Your task to perform on an android device: Open eBay Image 0: 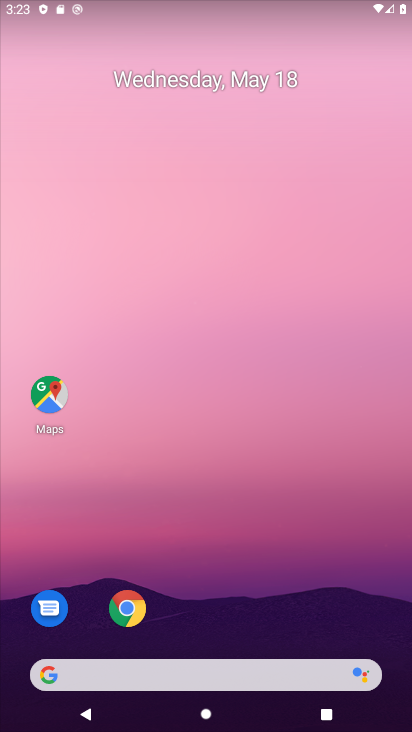
Step 0: click (131, 616)
Your task to perform on an android device: Open eBay Image 1: 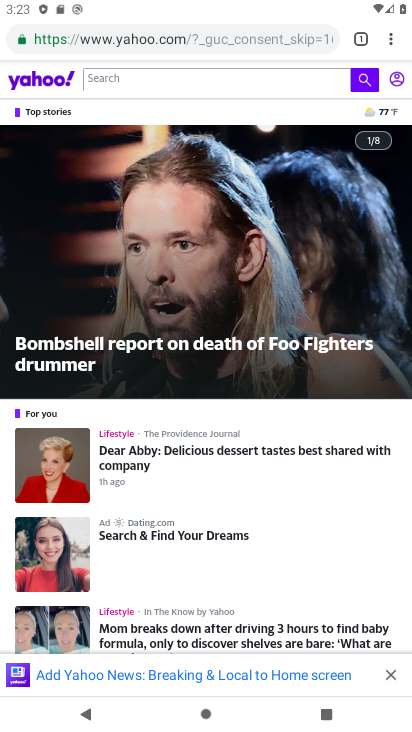
Step 1: click (201, 39)
Your task to perform on an android device: Open eBay Image 2: 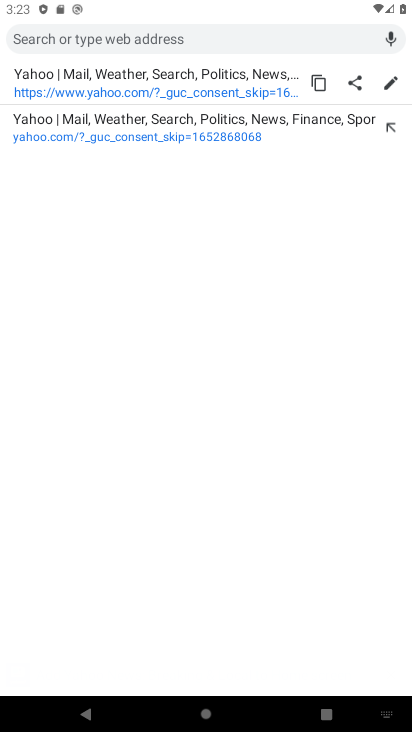
Step 2: click (158, 59)
Your task to perform on an android device: Open eBay Image 3: 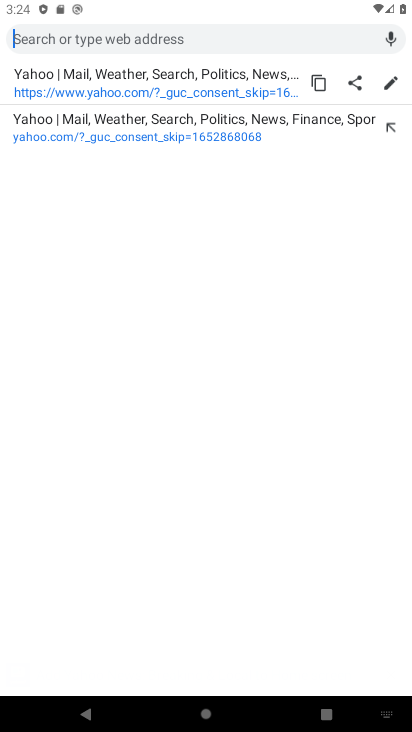
Step 3: press back button
Your task to perform on an android device: Open eBay Image 4: 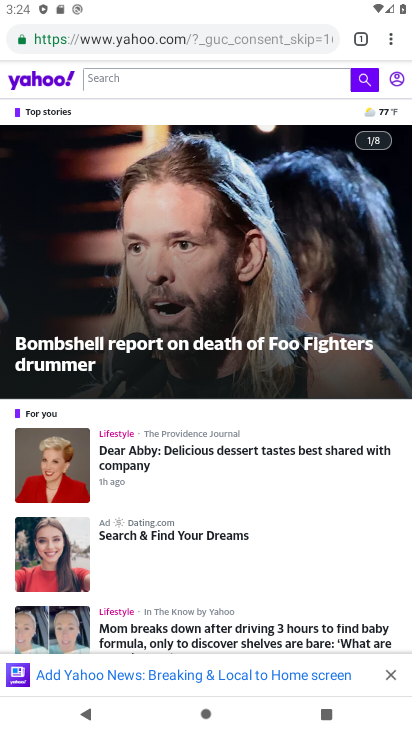
Step 4: click (358, 35)
Your task to perform on an android device: Open eBay Image 5: 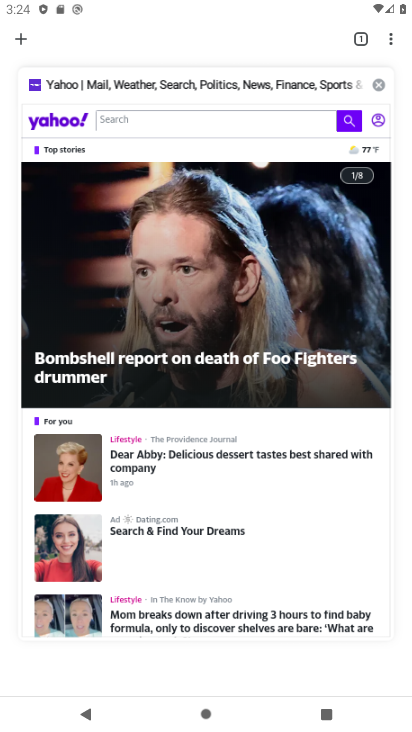
Step 5: click (20, 40)
Your task to perform on an android device: Open eBay Image 6: 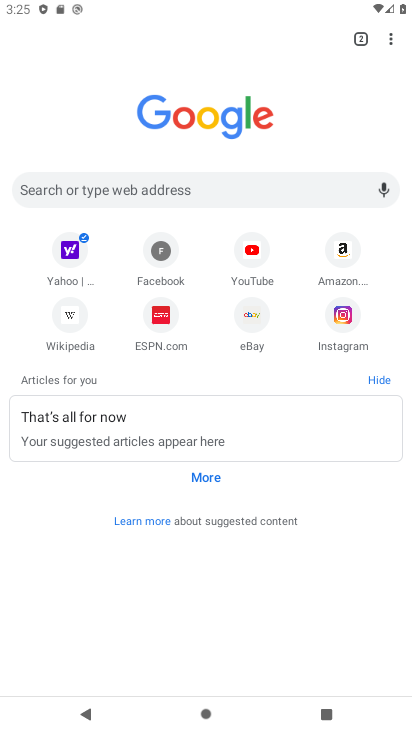
Step 6: click (112, 191)
Your task to perform on an android device: Open eBay Image 7: 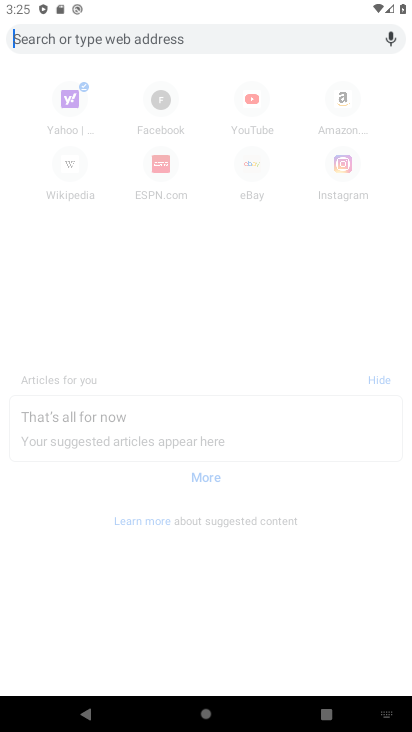
Step 7: type "ebay"
Your task to perform on an android device: Open eBay Image 8: 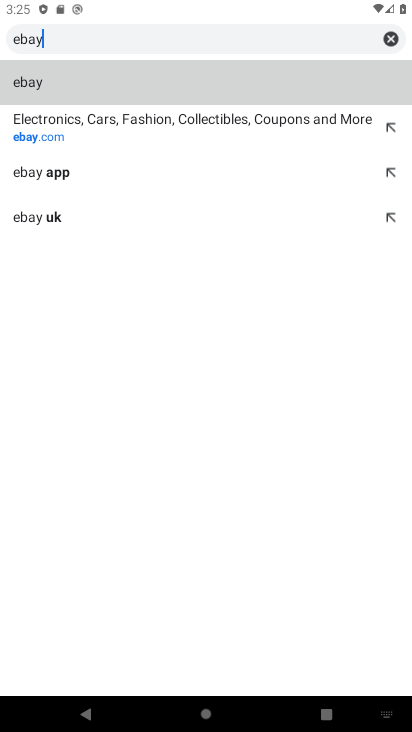
Step 8: click (40, 129)
Your task to perform on an android device: Open eBay Image 9: 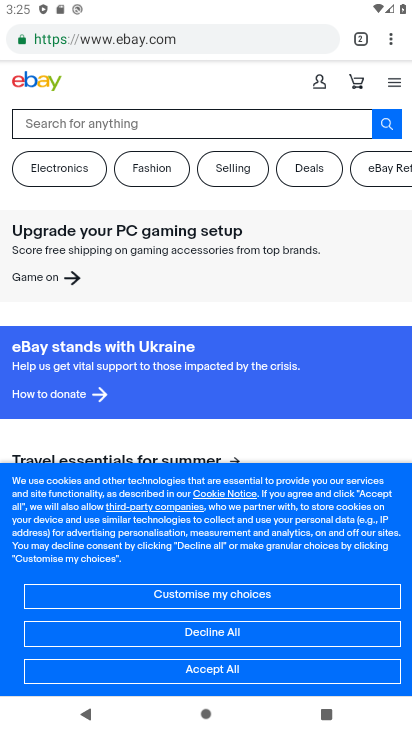
Step 9: task complete